Your task to perform on an android device: When is my next appointment? Image 0: 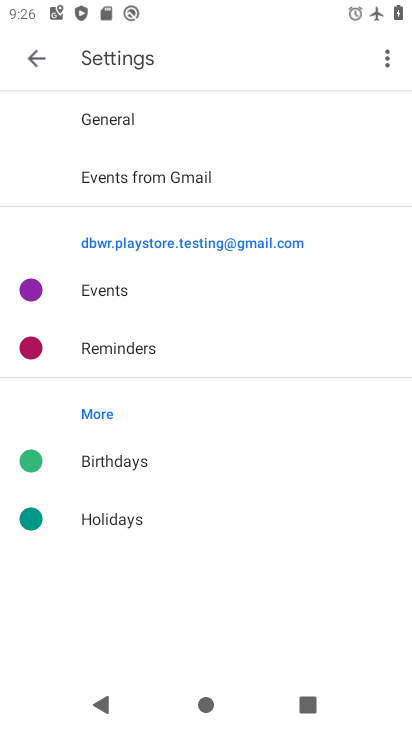
Step 0: press home button
Your task to perform on an android device: When is my next appointment? Image 1: 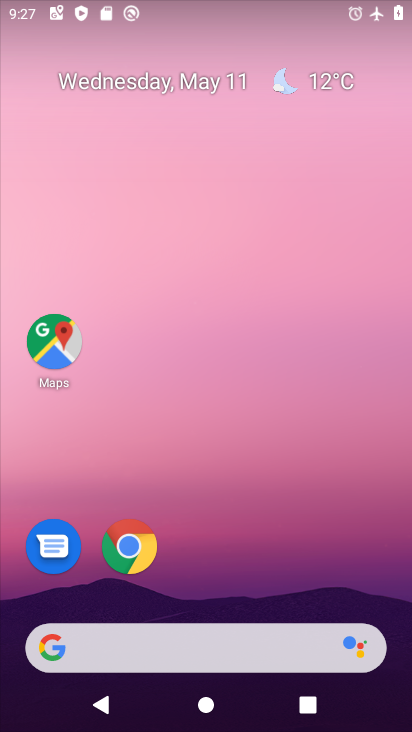
Step 1: drag from (391, 613) to (275, 67)
Your task to perform on an android device: When is my next appointment? Image 2: 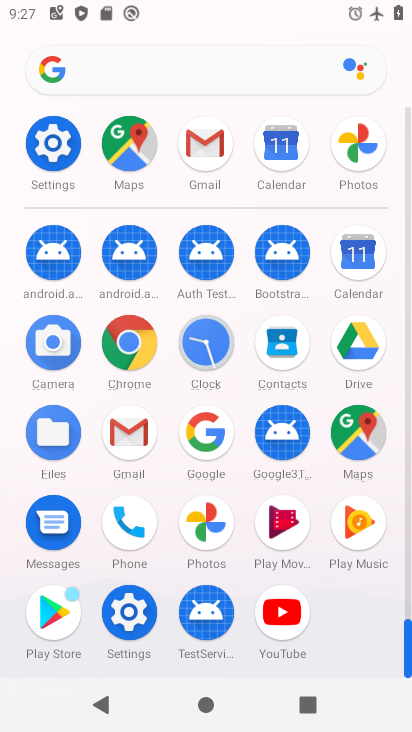
Step 2: click (358, 253)
Your task to perform on an android device: When is my next appointment? Image 3: 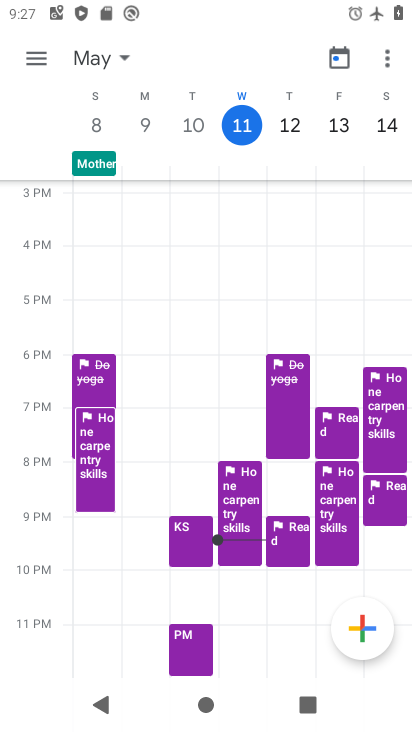
Step 3: click (34, 58)
Your task to perform on an android device: When is my next appointment? Image 4: 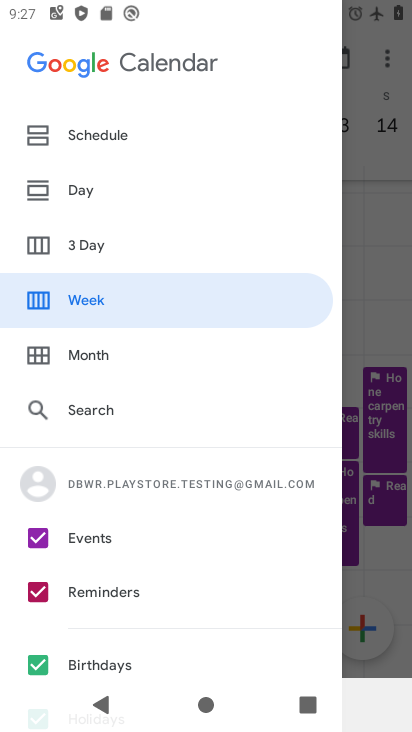
Step 4: click (95, 135)
Your task to perform on an android device: When is my next appointment? Image 5: 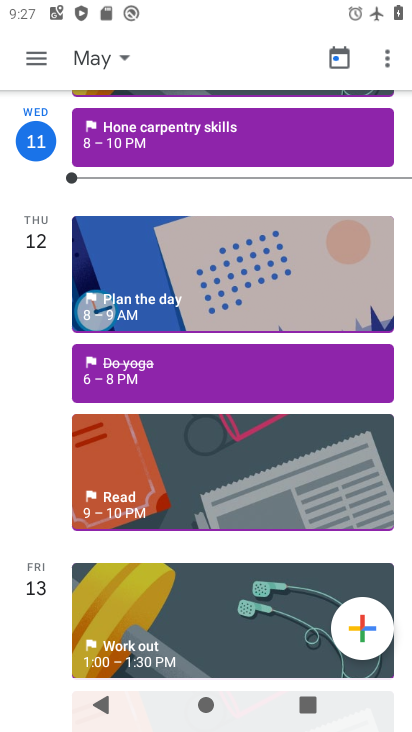
Step 5: task complete